Your task to perform on an android device: turn on notifications settings in the gmail app Image 0: 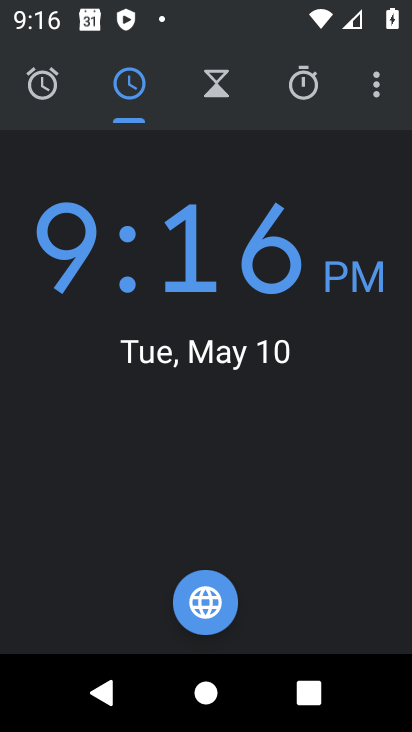
Step 0: press home button
Your task to perform on an android device: turn on notifications settings in the gmail app Image 1: 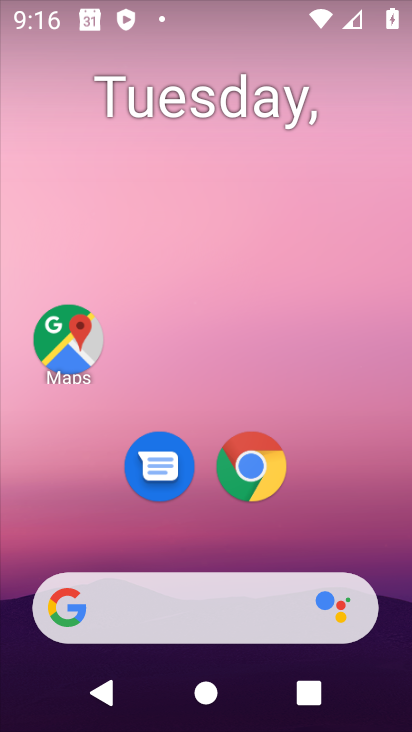
Step 1: drag from (341, 523) to (305, 124)
Your task to perform on an android device: turn on notifications settings in the gmail app Image 2: 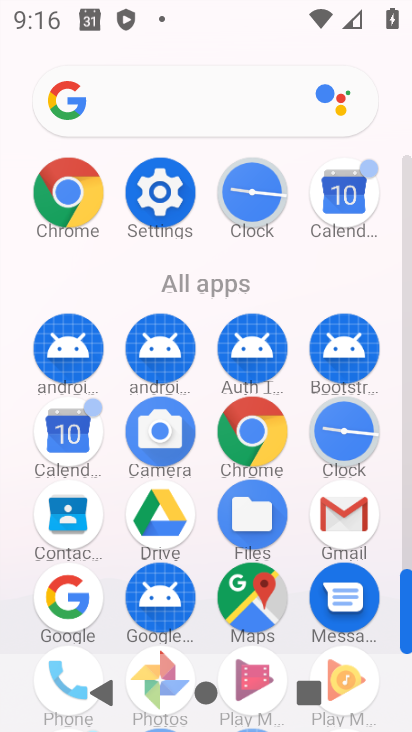
Step 2: click (343, 513)
Your task to perform on an android device: turn on notifications settings in the gmail app Image 3: 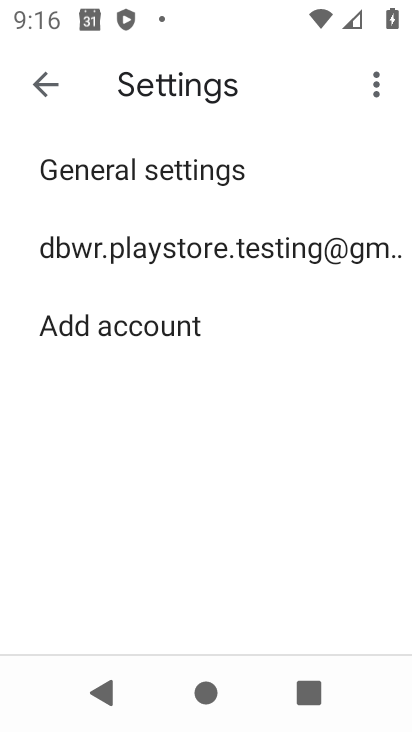
Step 3: click (256, 257)
Your task to perform on an android device: turn on notifications settings in the gmail app Image 4: 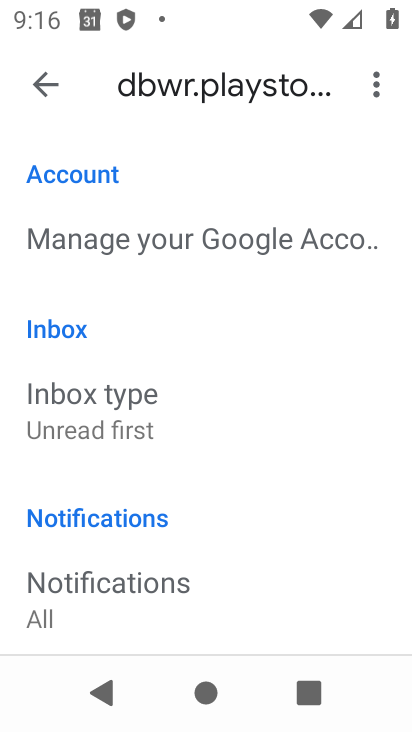
Step 4: drag from (206, 603) to (259, 275)
Your task to perform on an android device: turn on notifications settings in the gmail app Image 5: 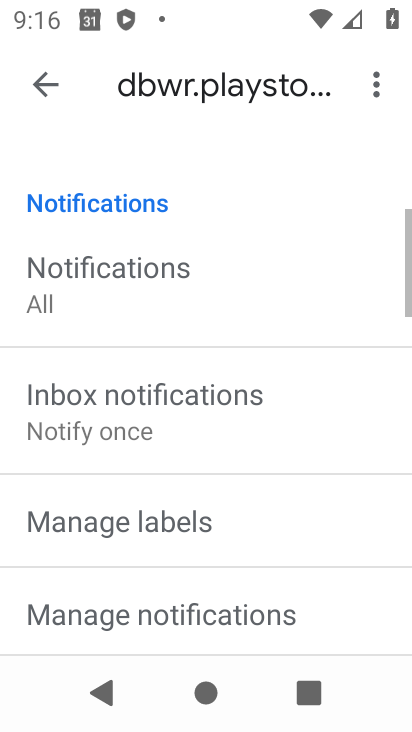
Step 5: drag from (228, 593) to (279, 326)
Your task to perform on an android device: turn on notifications settings in the gmail app Image 6: 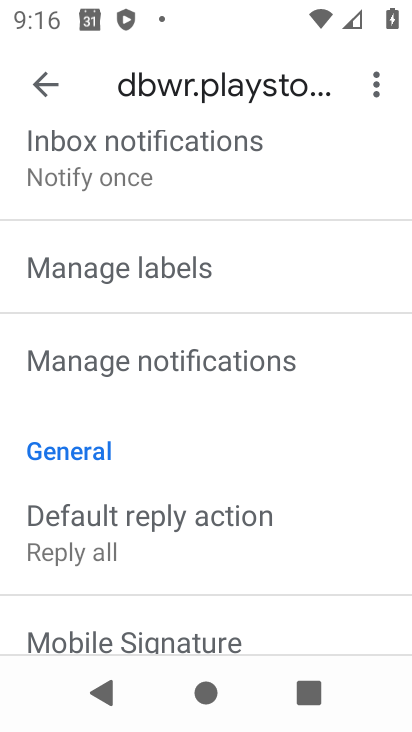
Step 6: click (200, 373)
Your task to perform on an android device: turn on notifications settings in the gmail app Image 7: 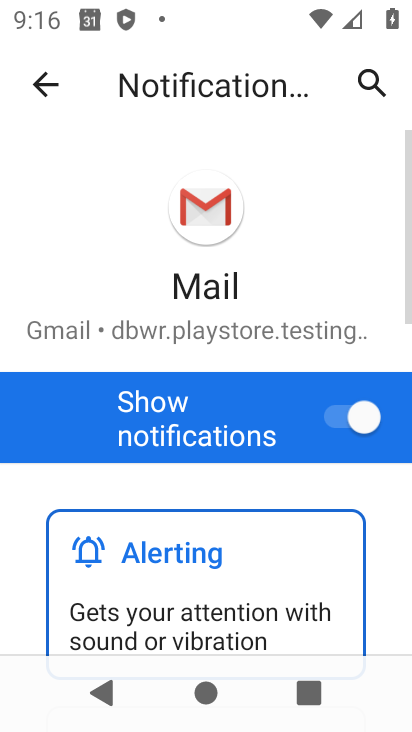
Step 7: task complete